Your task to perform on an android device: Open battery settings Image 0: 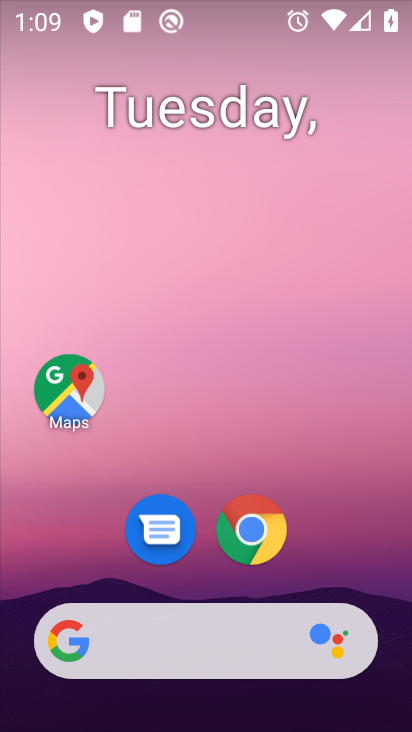
Step 0: drag from (392, 611) to (174, 53)
Your task to perform on an android device: Open battery settings Image 1: 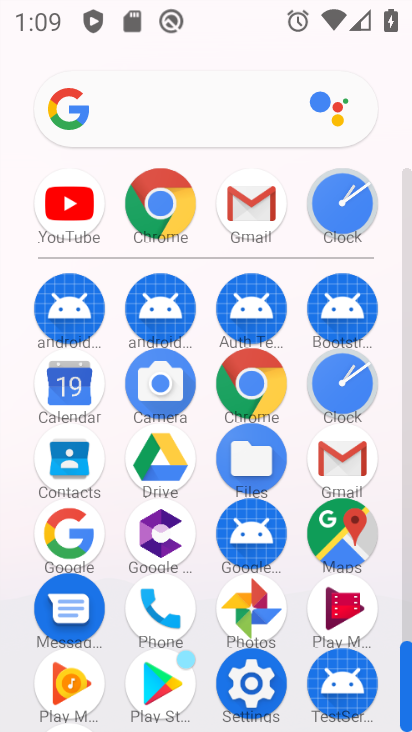
Step 1: click (232, 670)
Your task to perform on an android device: Open battery settings Image 2: 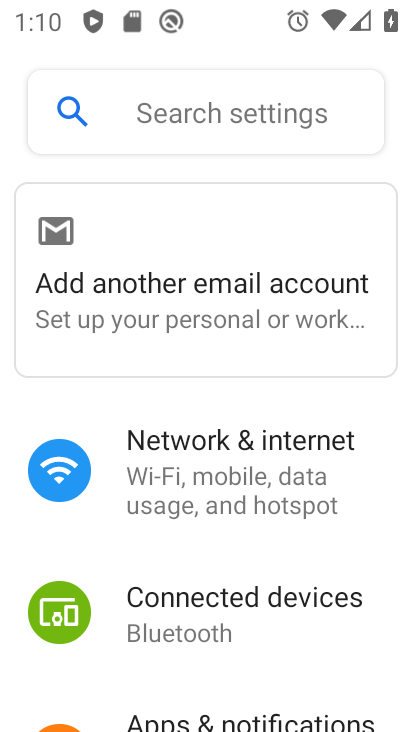
Step 2: drag from (198, 657) to (249, 128)
Your task to perform on an android device: Open battery settings Image 3: 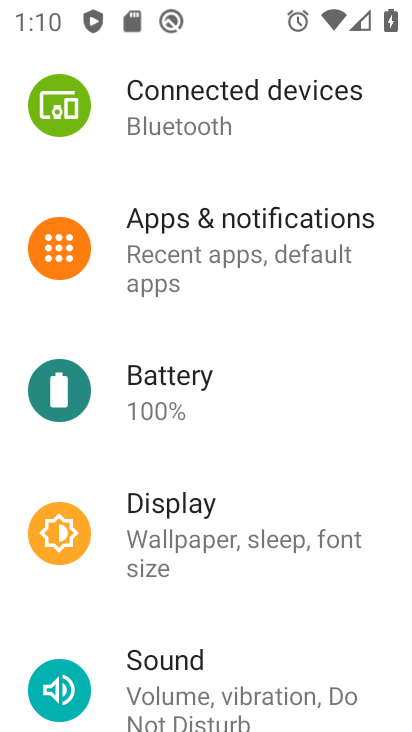
Step 3: click (230, 386)
Your task to perform on an android device: Open battery settings Image 4: 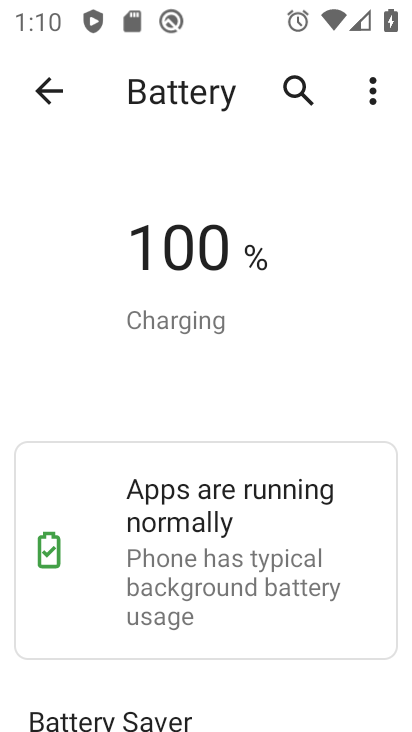
Step 4: task complete